Your task to perform on an android device: refresh tabs in the chrome app Image 0: 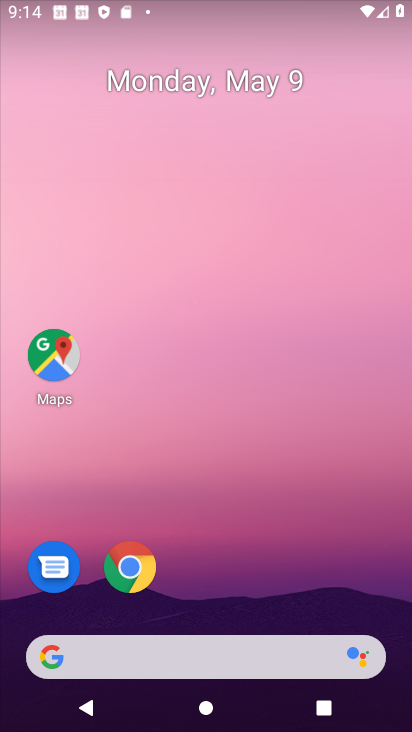
Step 0: click (222, 259)
Your task to perform on an android device: refresh tabs in the chrome app Image 1: 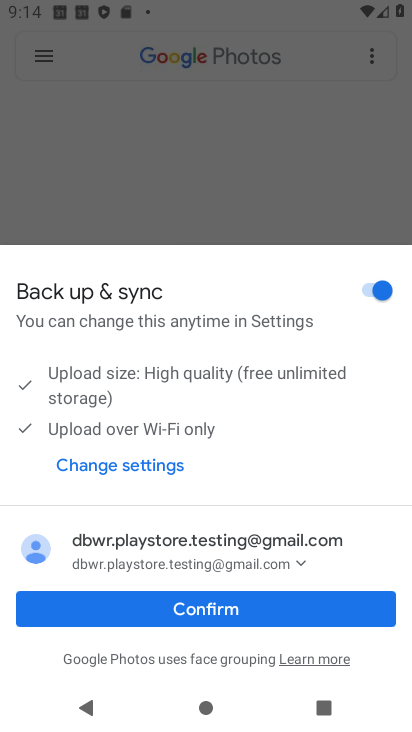
Step 1: click (206, 607)
Your task to perform on an android device: refresh tabs in the chrome app Image 2: 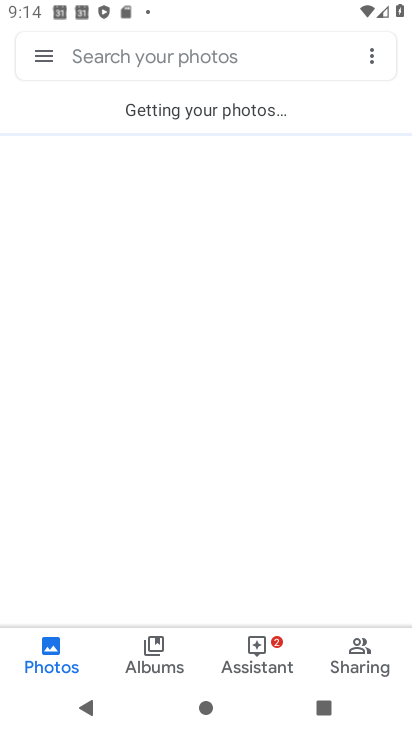
Step 2: press back button
Your task to perform on an android device: refresh tabs in the chrome app Image 3: 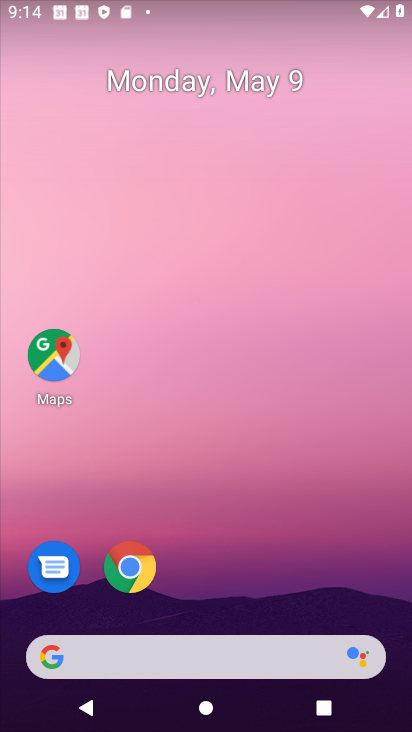
Step 3: drag from (181, 582) to (242, 298)
Your task to perform on an android device: refresh tabs in the chrome app Image 4: 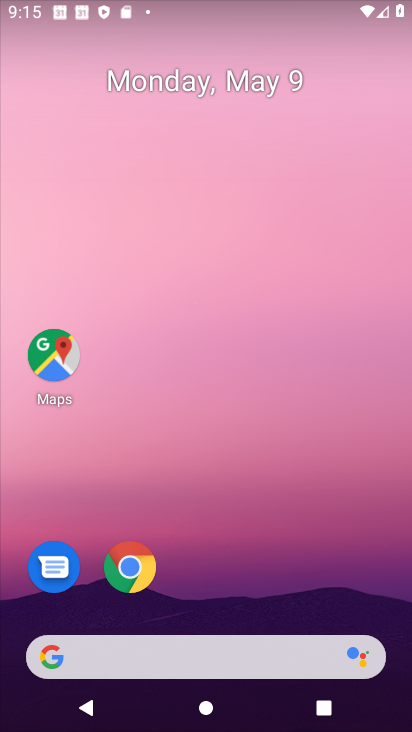
Step 4: click (127, 563)
Your task to perform on an android device: refresh tabs in the chrome app Image 5: 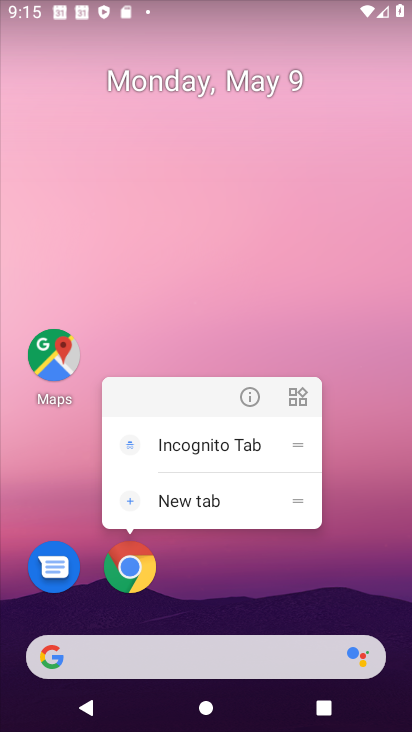
Step 5: click (254, 402)
Your task to perform on an android device: refresh tabs in the chrome app Image 6: 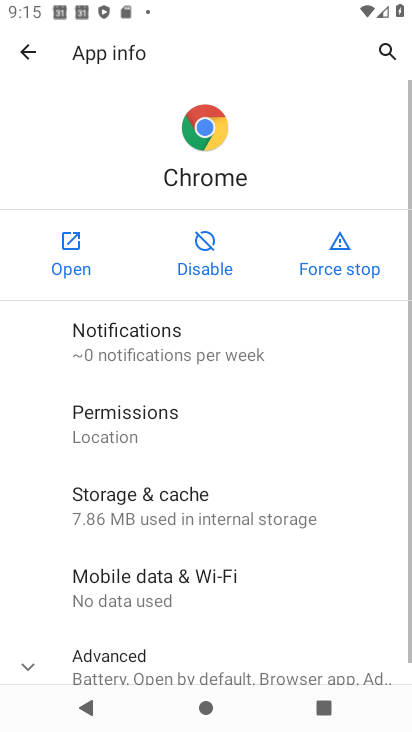
Step 6: click (71, 249)
Your task to perform on an android device: refresh tabs in the chrome app Image 7: 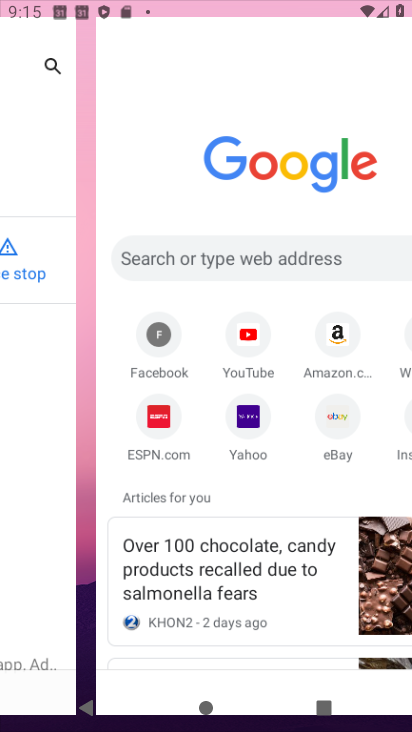
Step 7: click (80, 243)
Your task to perform on an android device: refresh tabs in the chrome app Image 8: 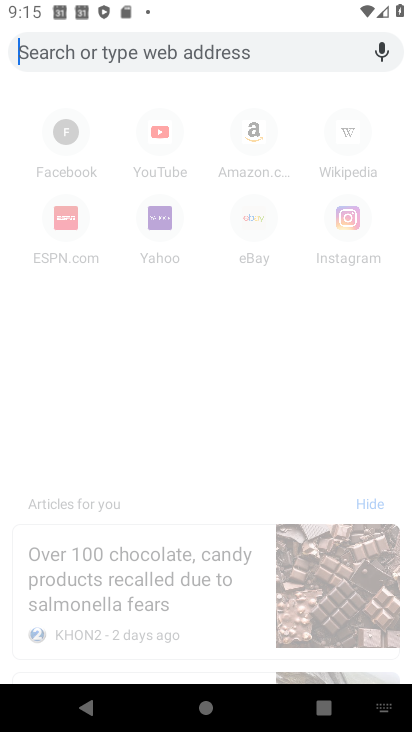
Step 8: drag from (252, 151) to (338, 464)
Your task to perform on an android device: refresh tabs in the chrome app Image 9: 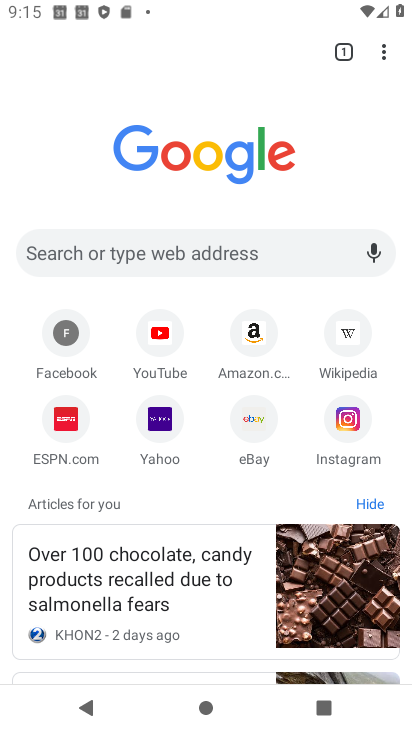
Step 9: click (386, 35)
Your task to perform on an android device: refresh tabs in the chrome app Image 10: 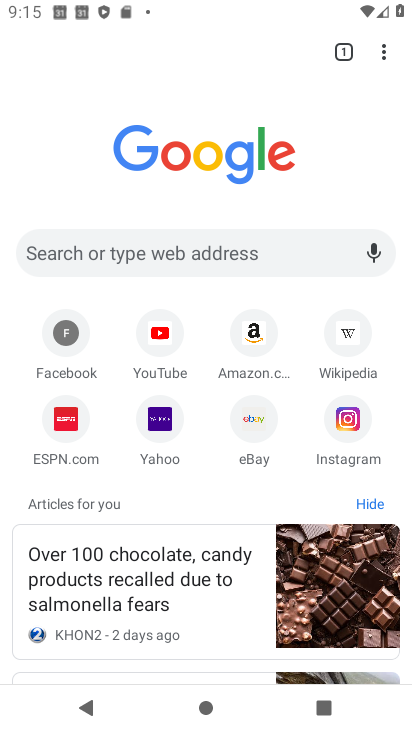
Step 10: click (379, 57)
Your task to perform on an android device: refresh tabs in the chrome app Image 11: 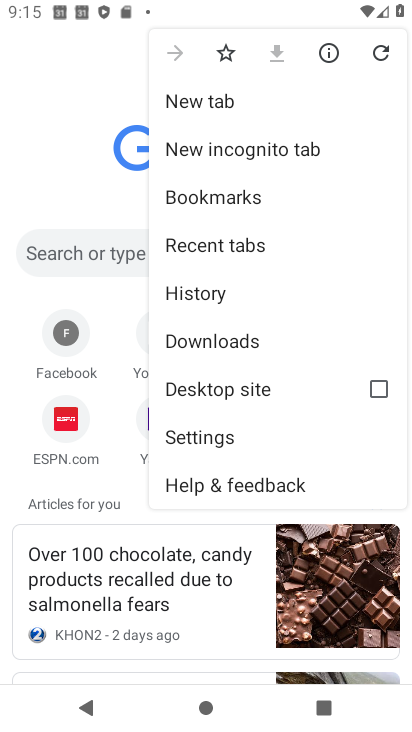
Step 11: click (388, 57)
Your task to perform on an android device: refresh tabs in the chrome app Image 12: 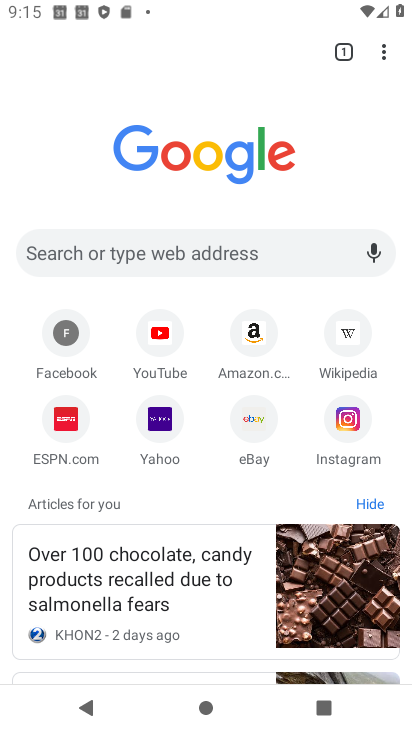
Step 12: task complete